Your task to perform on an android device: turn on bluetooth scan Image 0: 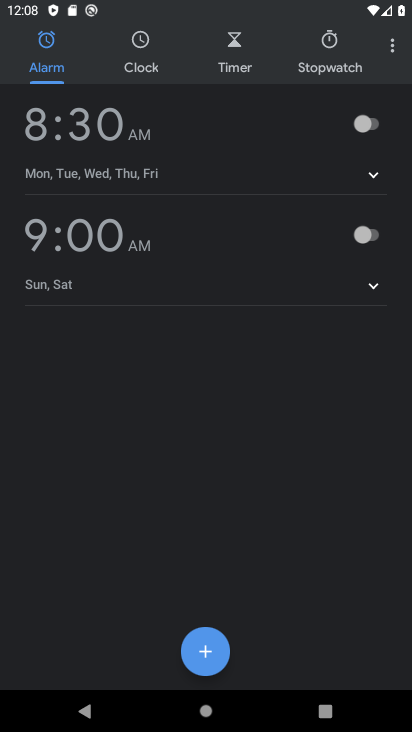
Step 0: press home button
Your task to perform on an android device: turn on bluetooth scan Image 1: 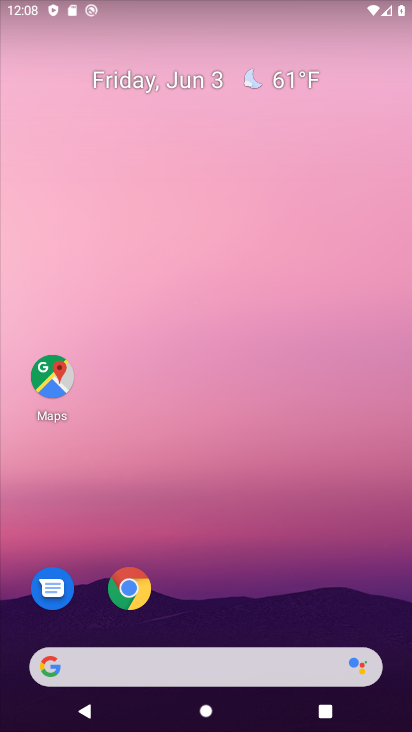
Step 1: drag from (301, 608) to (258, 1)
Your task to perform on an android device: turn on bluetooth scan Image 2: 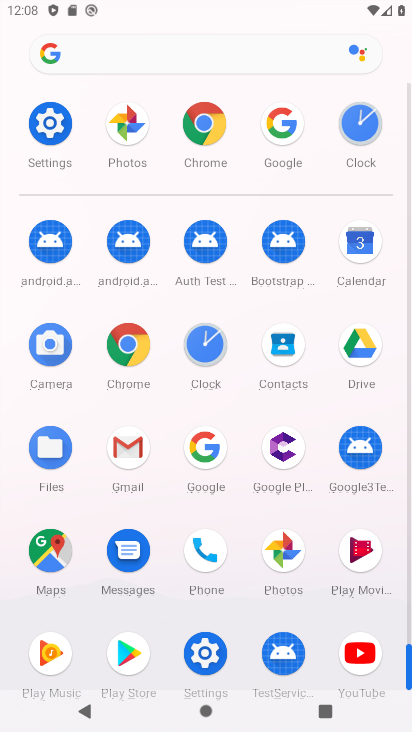
Step 2: drag from (251, 220) to (236, 105)
Your task to perform on an android device: turn on bluetooth scan Image 3: 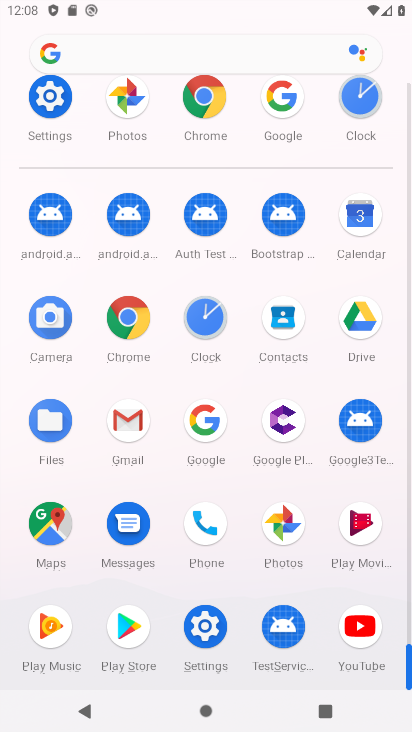
Step 3: click (213, 620)
Your task to perform on an android device: turn on bluetooth scan Image 4: 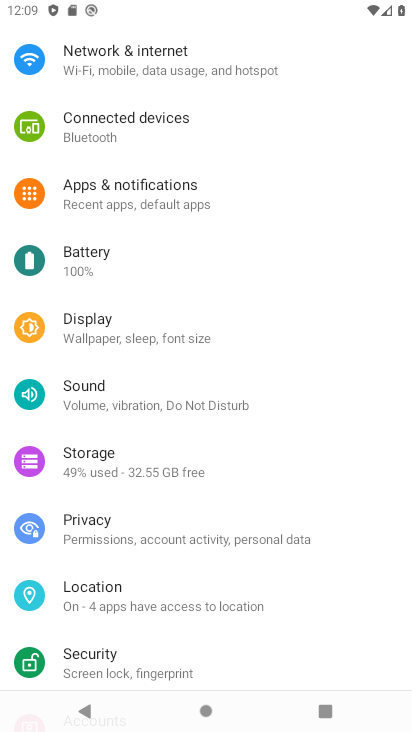
Step 4: click (137, 589)
Your task to perform on an android device: turn on bluetooth scan Image 5: 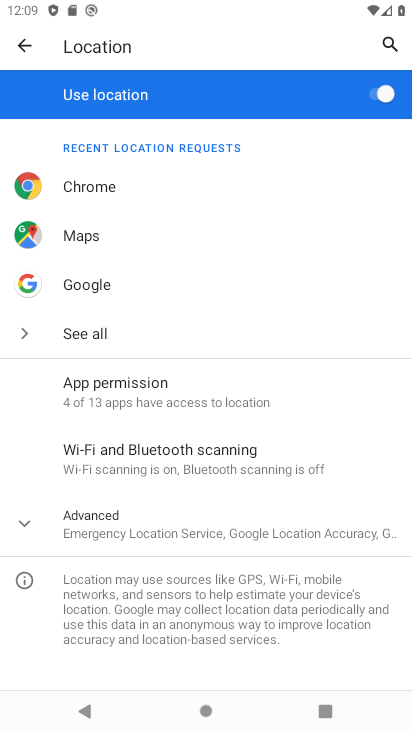
Step 5: click (155, 456)
Your task to perform on an android device: turn on bluetooth scan Image 6: 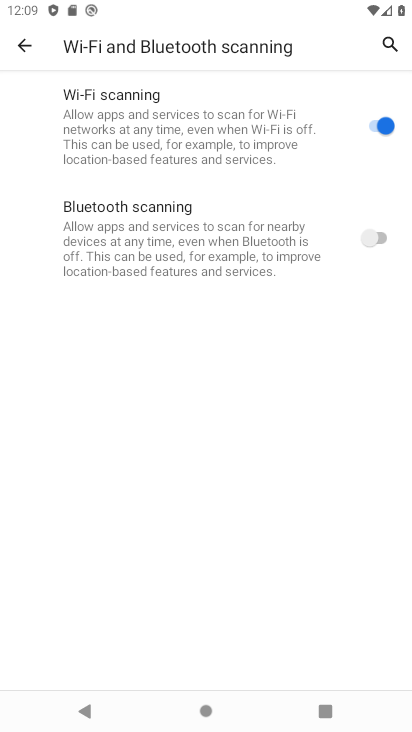
Step 6: click (356, 249)
Your task to perform on an android device: turn on bluetooth scan Image 7: 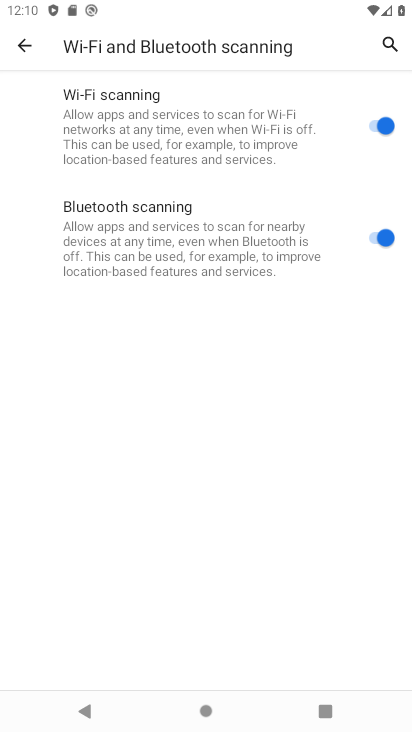
Step 7: click (289, 387)
Your task to perform on an android device: turn on bluetooth scan Image 8: 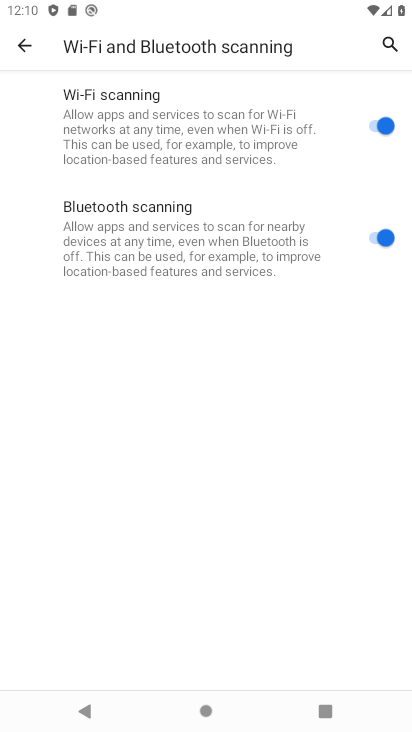
Step 8: task complete